Your task to perform on an android device: change the clock style Image 0: 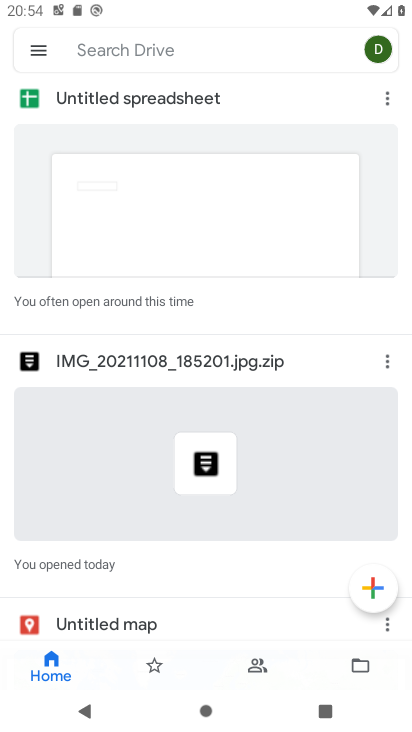
Step 0: press home button
Your task to perform on an android device: change the clock style Image 1: 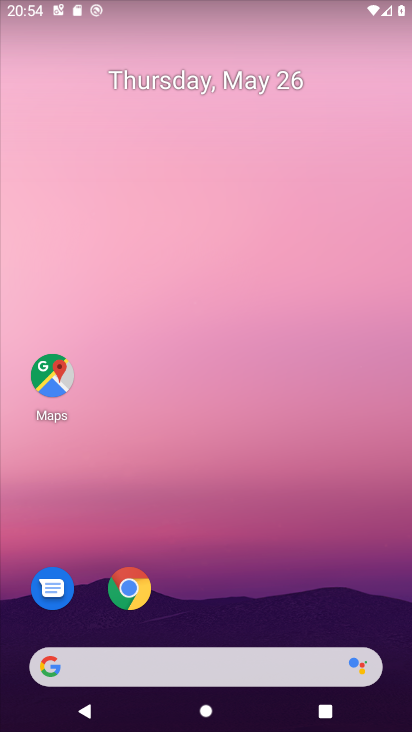
Step 1: drag from (268, 542) to (231, 0)
Your task to perform on an android device: change the clock style Image 2: 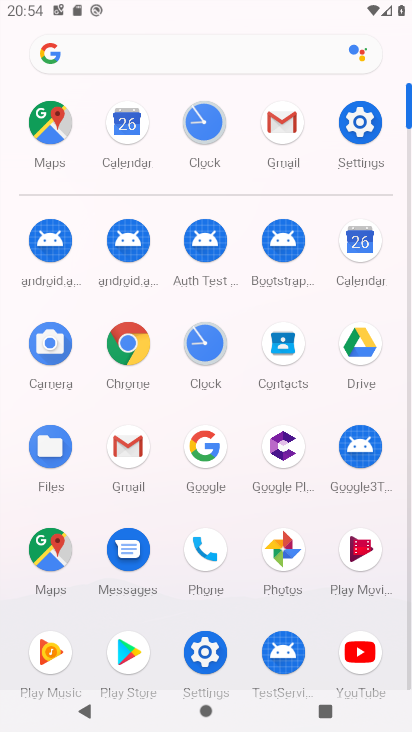
Step 2: click (192, 341)
Your task to perform on an android device: change the clock style Image 3: 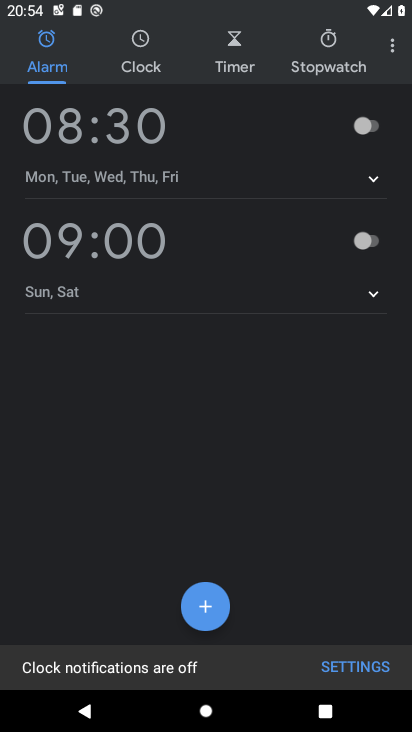
Step 3: click (383, 52)
Your task to perform on an android device: change the clock style Image 4: 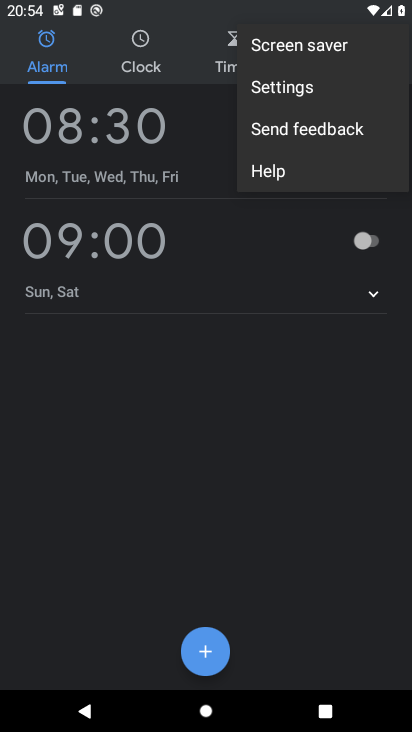
Step 4: click (288, 96)
Your task to perform on an android device: change the clock style Image 5: 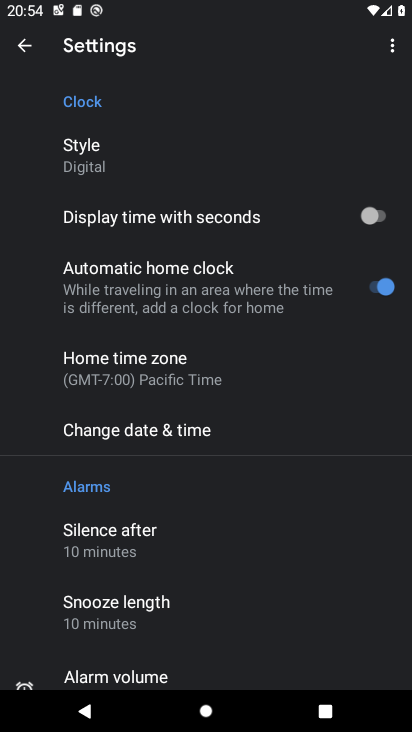
Step 5: click (87, 156)
Your task to perform on an android device: change the clock style Image 6: 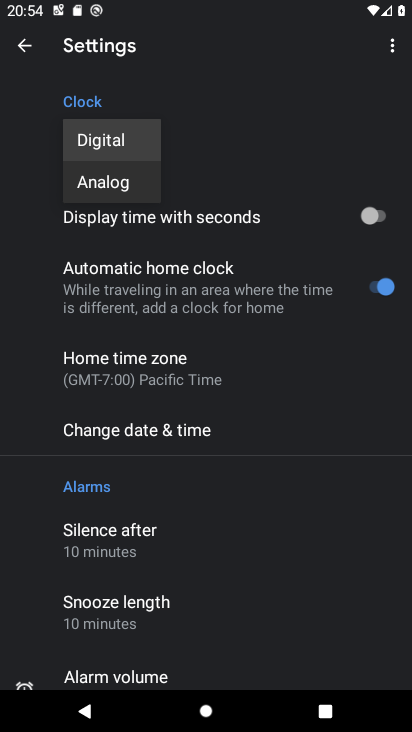
Step 6: click (107, 188)
Your task to perform on an android device: change the clock style Image 7: 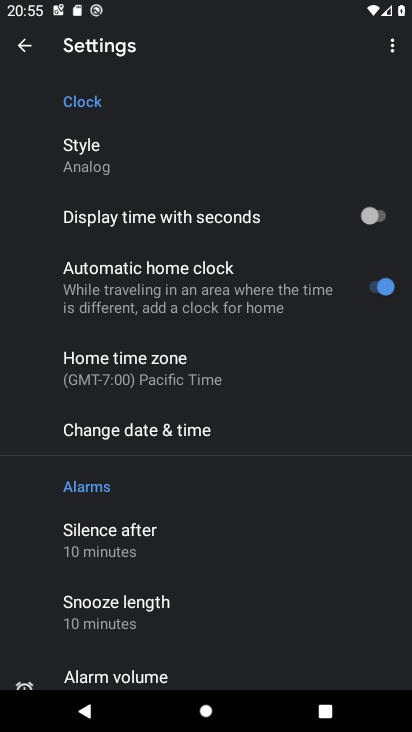
Step 7: task complete